Your task to perform on an android device: Go to eBay Image 0: 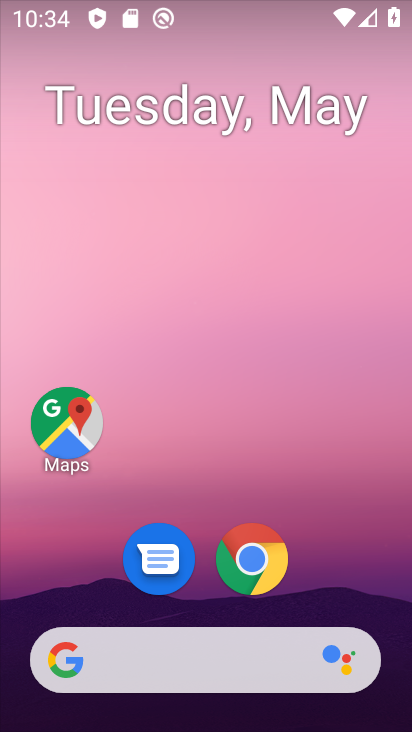
Step 0: drag from (378, 581) to (343, 62)
Your task to perform on an android device: Go to eBay Image 1: 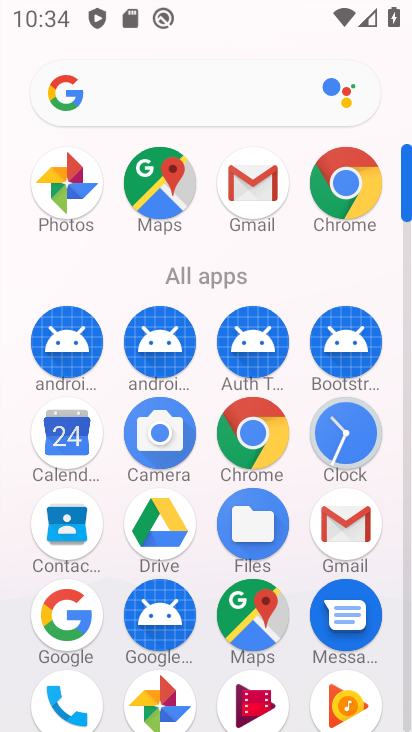
Step 1: click (344, 198)
Your task to perform on an android device: Go to eBay Image 2: 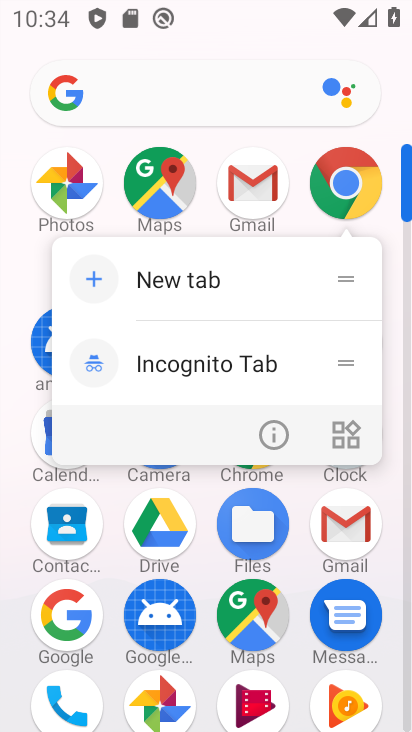
Step 2: click (337, 198)
Your task to perform on an android device: Go to eBay Image 3: 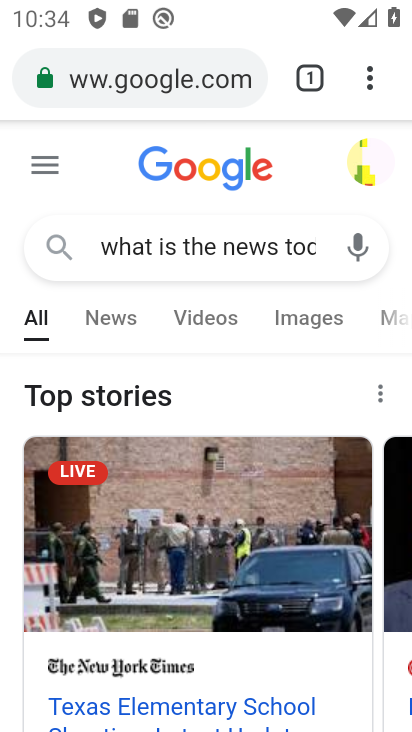
Step 3: click (189, 65)
Your task to perform on an android device: Go to eBay Image 4: 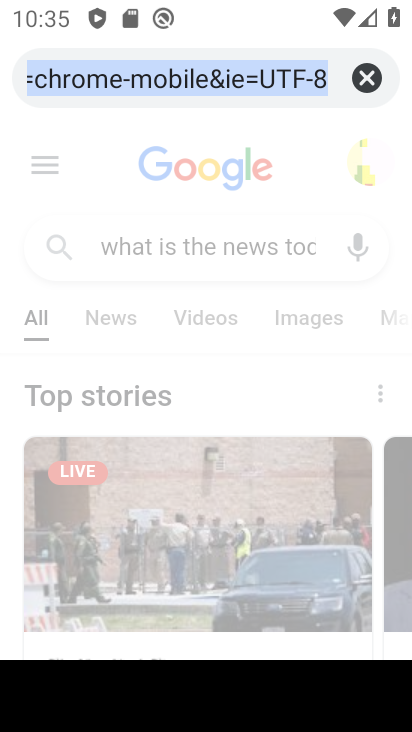
Step 4: click (375, 70)
Your task to perform on an android device: Go to eBay Image 5: 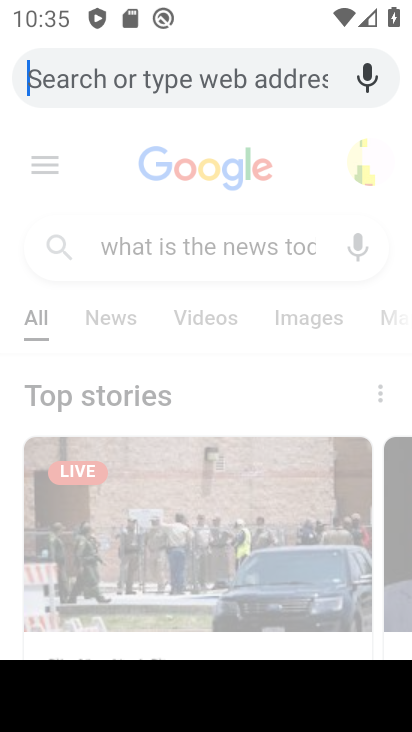
Step 5: type "ebay"
Your task to perform on an android device: Go to eBay Image 6: 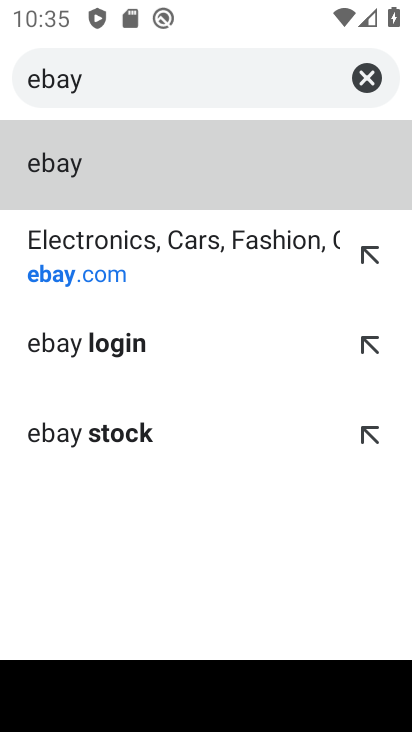
Step 6: click (99, 178)
Your task to perform on an android device: Go to eBay Image 7: 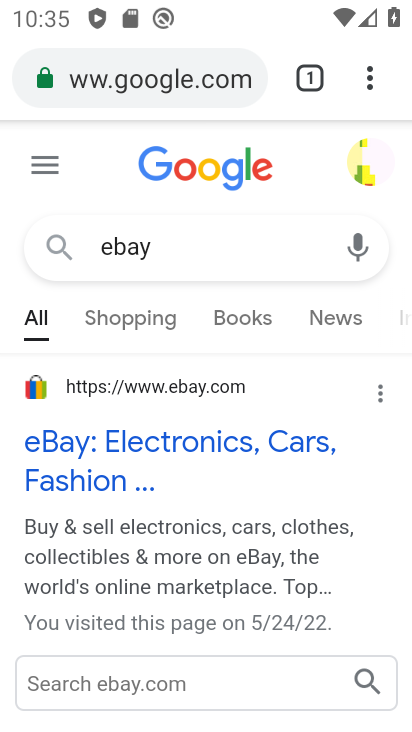
Step 7: click (150, 456)
Your task to perform on an android device: Go to eBay Image 8: 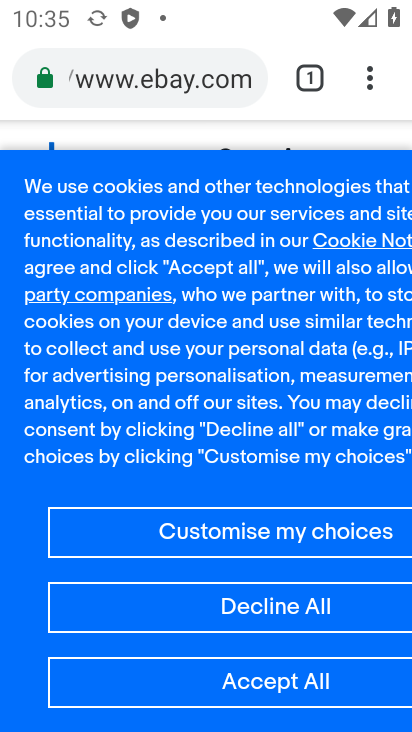
Step 8: task complete